Your task to perform on an android device: add a contact Image 0: 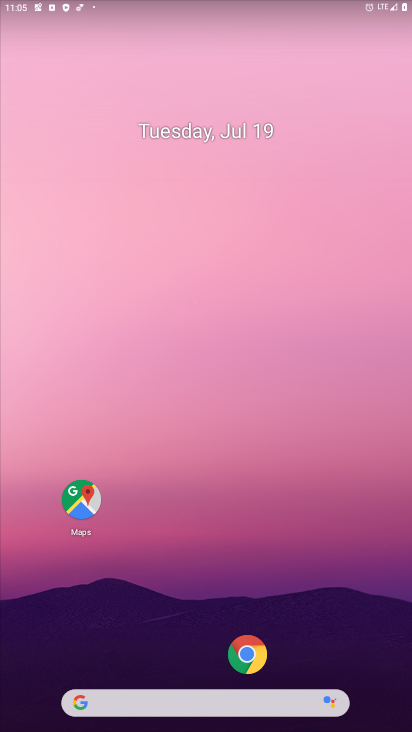
Step 0: drag from (169, 670) to (163, 227)
Your task to perform on an android device: add a contact Image 1: 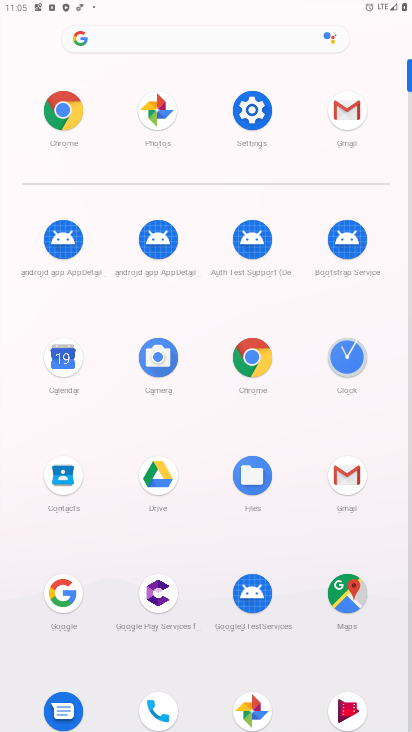
Step 1: click (66, 478)
Your task to perform on an android device: add a contact Image 2: 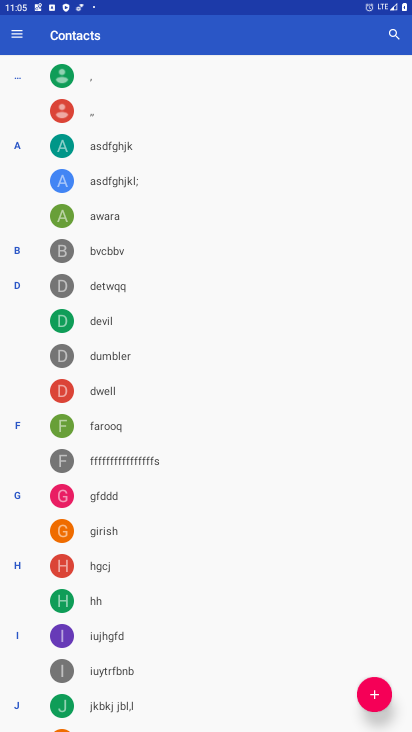
Step 2: click (380, 684)
Your task to perform on an android device: add a contact Image 3: 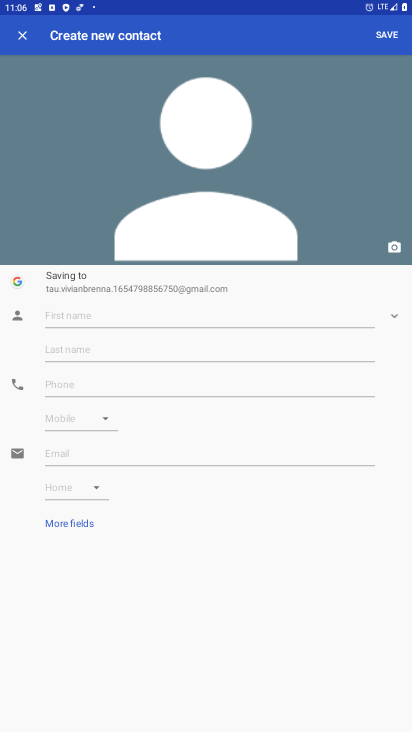
Step 3: type ",,,"
Your task to perform on an android device: add a contact Image 4: 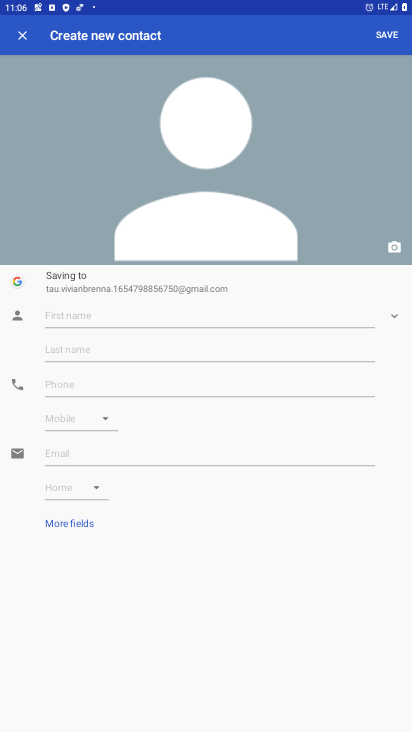
Step 4: click (69, 387)
Your task to perform on an android device: add a contact Image 5: 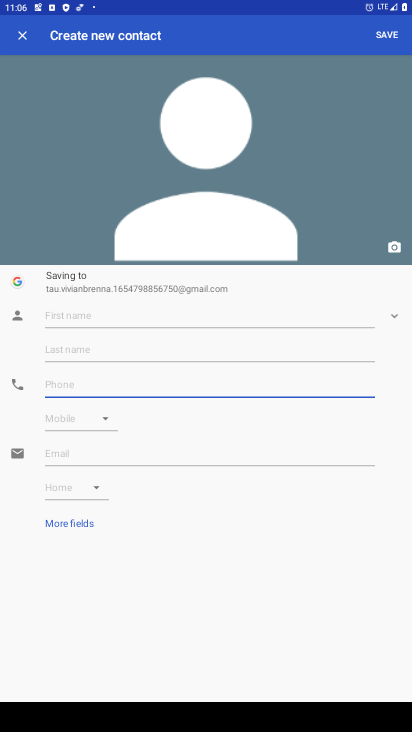
Step 5: type "1234567890-0"
Your task to perform on an android device: add a contact Image 6: 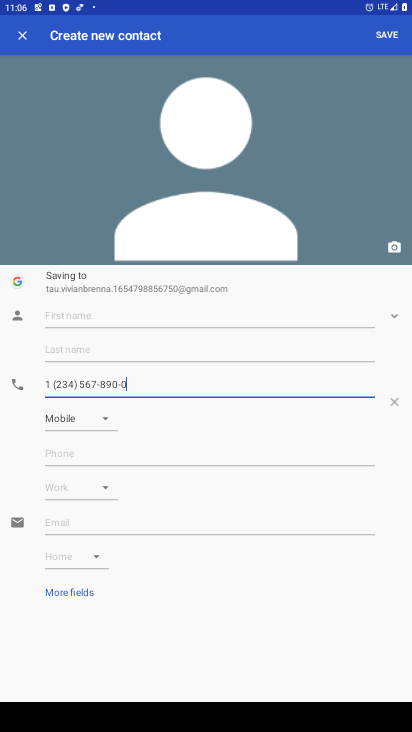
Step 6: click (99, 303)
Your task to perform on an android device: add a contact Image 7: 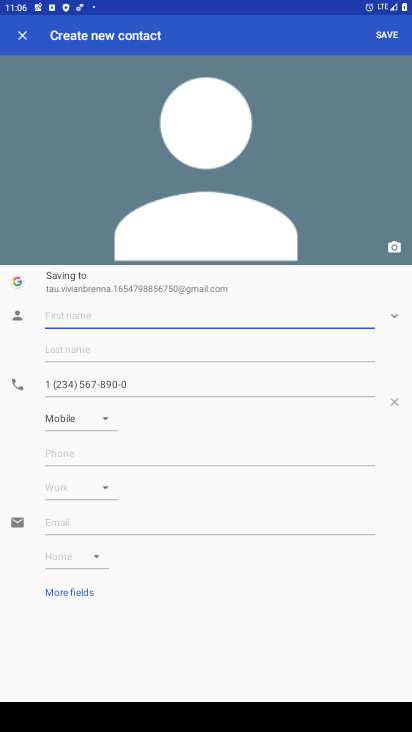
Step 7: type ",,,"
Your task to perform on an android device: add a contact Image 8: 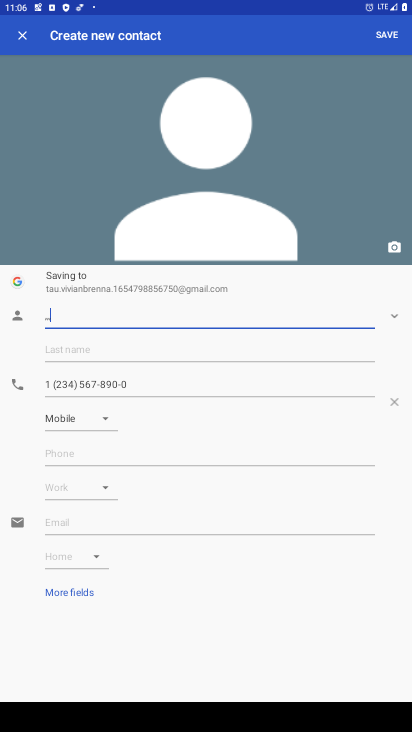
Step 8: type ""
Your task to perform on an android device: add a contact Image 9: 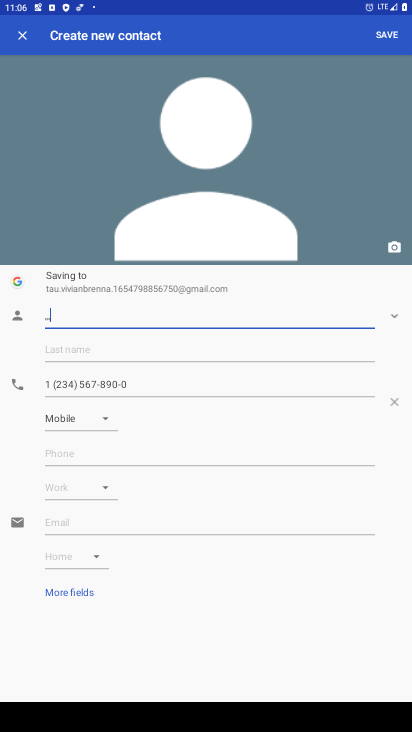
Step 9: click (386, 30)
Your task to perform on an android device: add a contact Image 10: 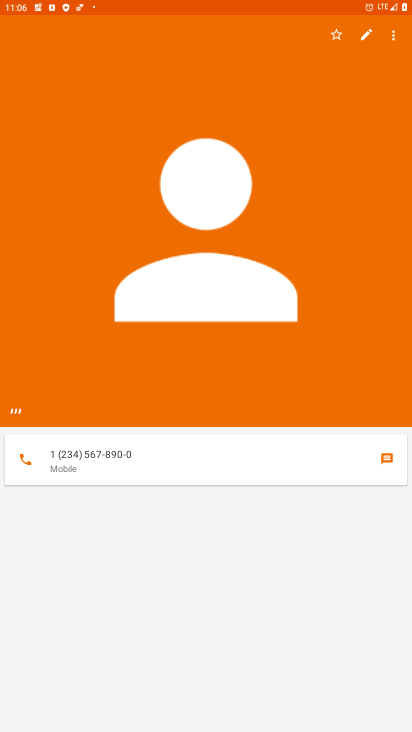
Step 10: task complete